Your task to perform on an android device: Go to sound settings Image 0: 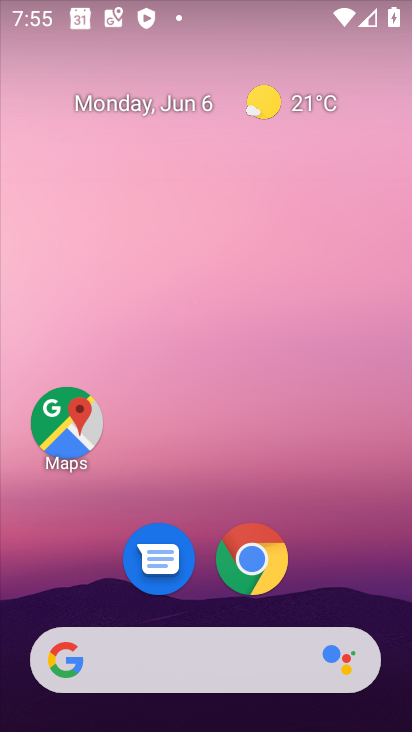
Step 0: drag from (205, 730) to (212, 202)
Your task to perform on an android device: Go to sound settings Image 1: 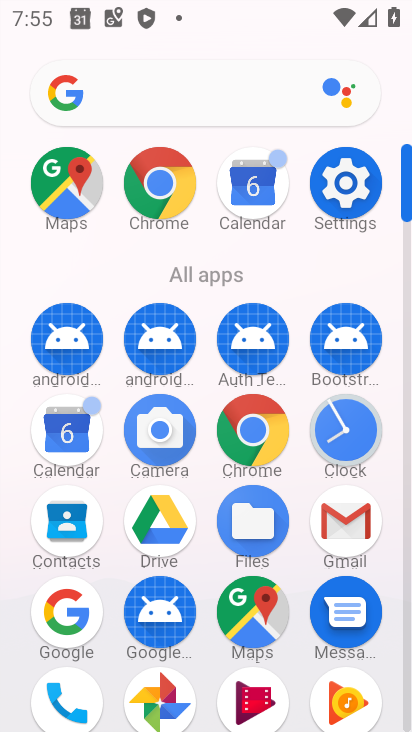
Step 1: click (342, 174)
Your task to perform on an android device: Go to sound settings Image 2: 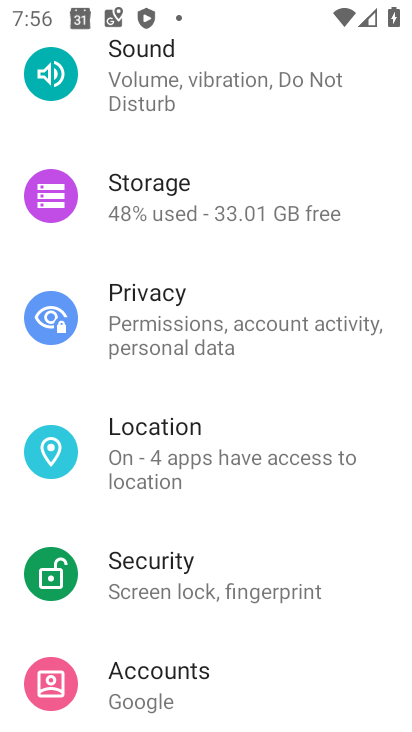
Step 2: click (161, 84)
Your task to perform on an android device: Go to sound settings Image 3: 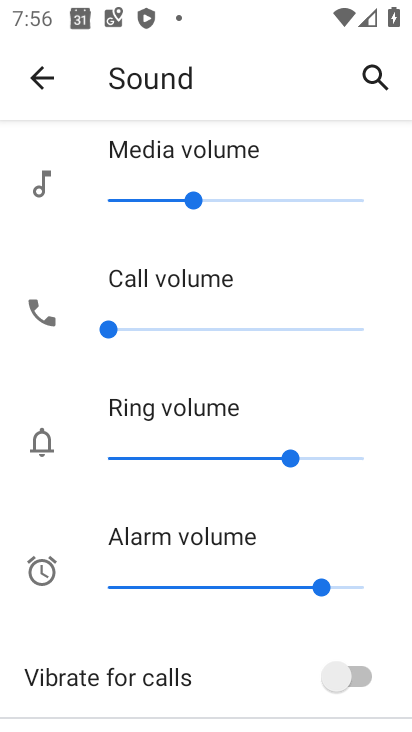
Step 3: task complete